Your task to perform on an android device: move a message to another label in the gmail app Image 0: 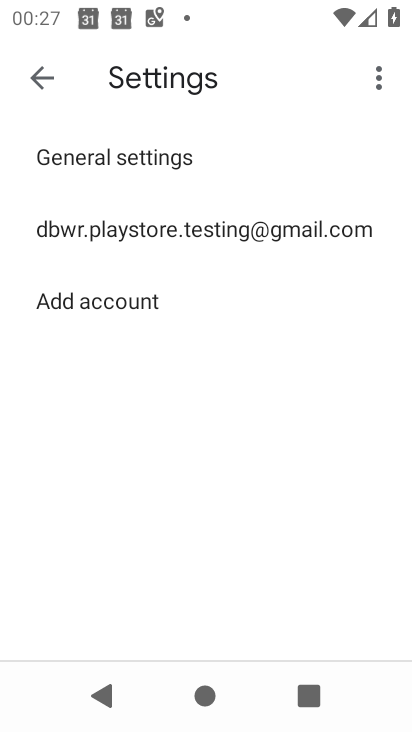
Step 0: press home button
Your task to perform on an android device: move a message to another label in the gmail app Image 1: 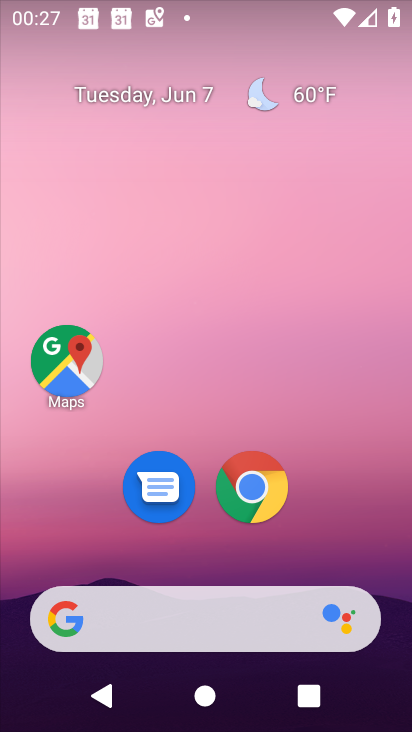
Step 1: drag from (392, 554) to (228, 45)
Your task to perform on an android device: move a message to another label in the gmail app Image 2: 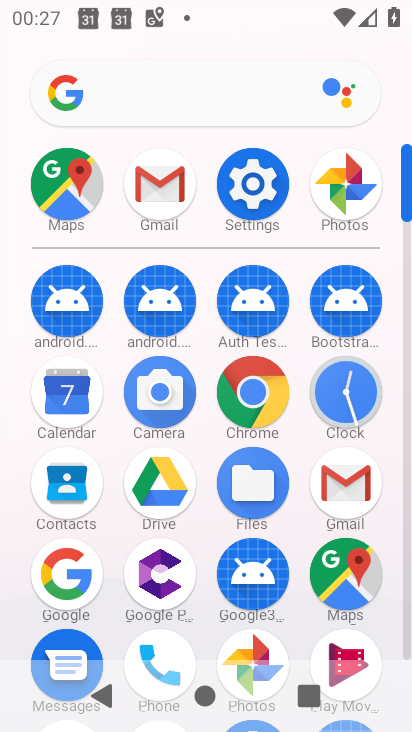
Step 2: click (174, 179)
Your task to perform on an android device: move a message to another label in the gmail app Image 3: 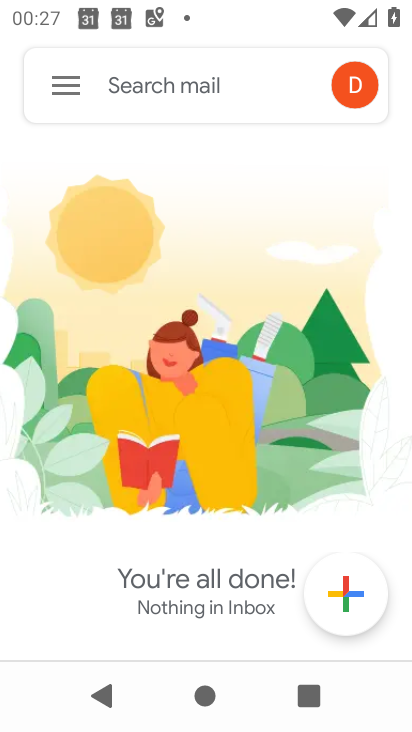
Step 3: task complete